Your task to perform on an android device: Go to internet settings Image 0: 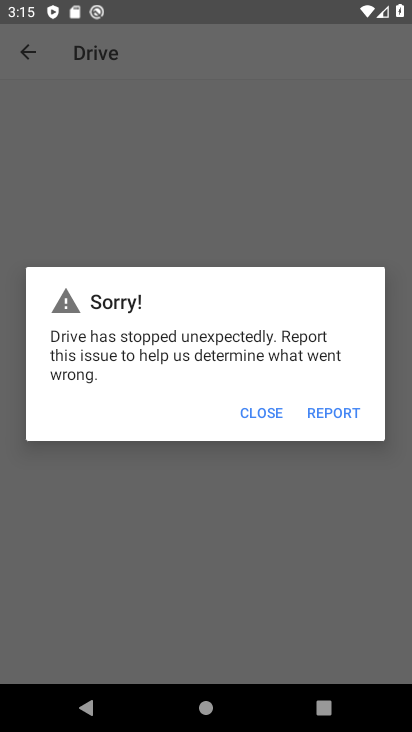
Step 0: press home button
Your task to perform on an android device: Go to internet settings Image 1: 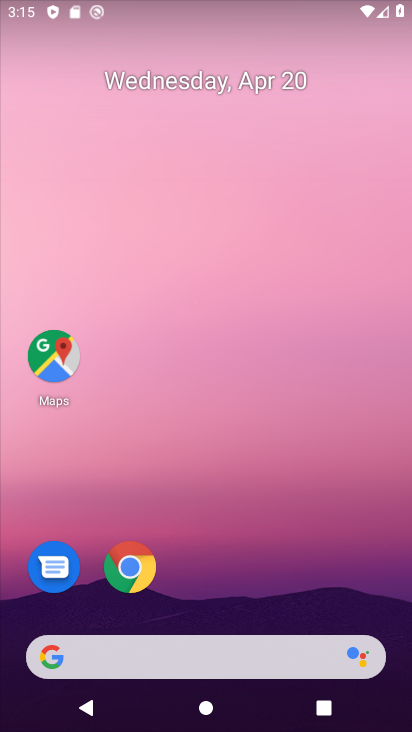
Step 1: drag from (314, 520) to (200, 110)
Your task to perform on an android device: Go to internet settings Image 2: 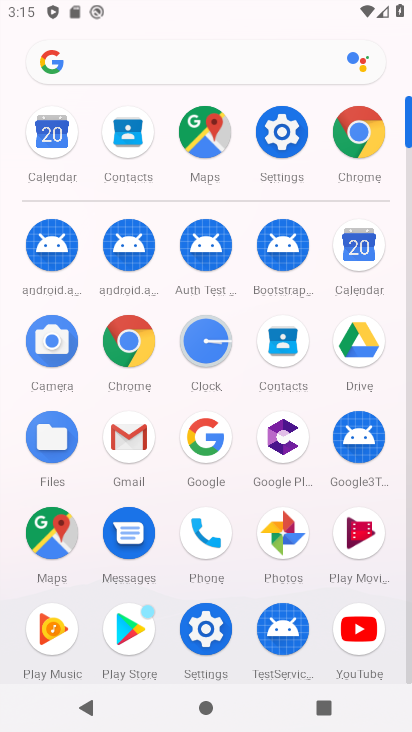
Step 2: click (293, 137)
Your task to perform on an android device: Go to internet settings Image 3: 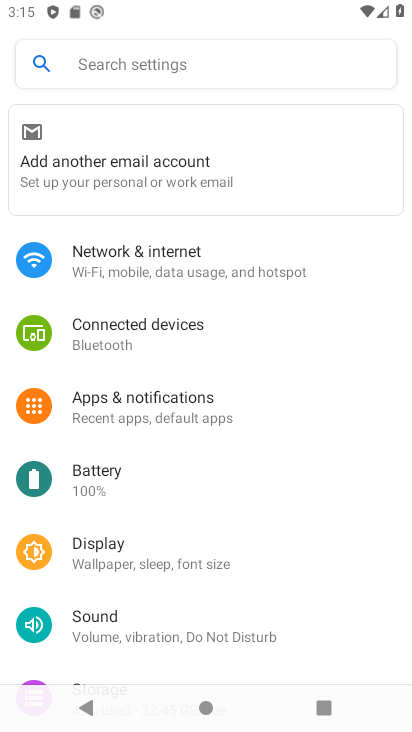
Step 3: click (280, 257)
Your task to perform on an android device: Go to internet settings Image 4: 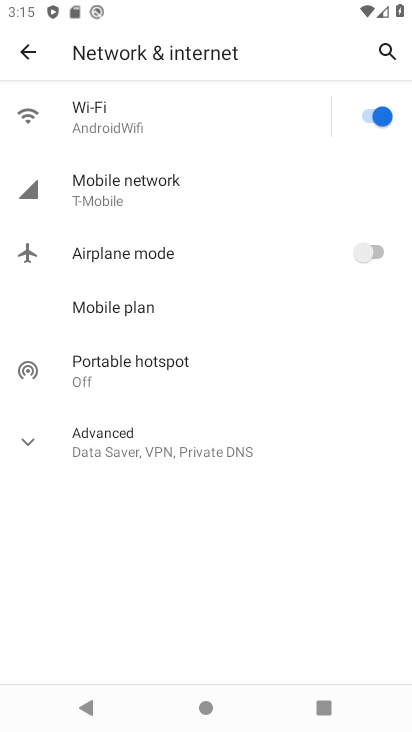
Step 4: task complete